Your task to perform on an android device: Go to network settings Image 0: 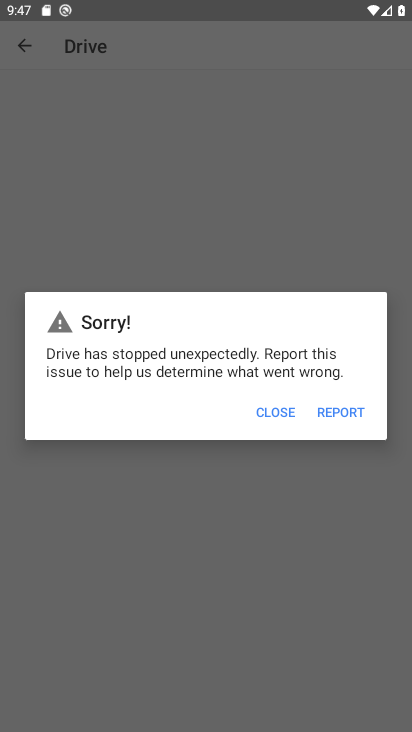
Step 0: press home button
Your task to perform on an android device: Go to network settings Image 1: 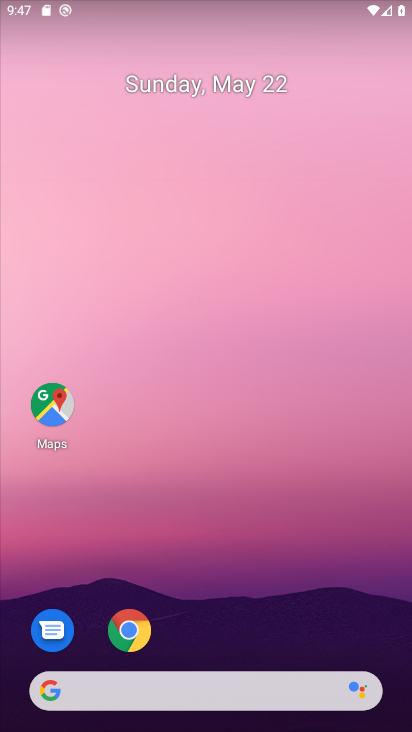
Step 1: drag from (398, 707) to (376, 377)
Your task to perform on an android device: Go to network settings Image 2: 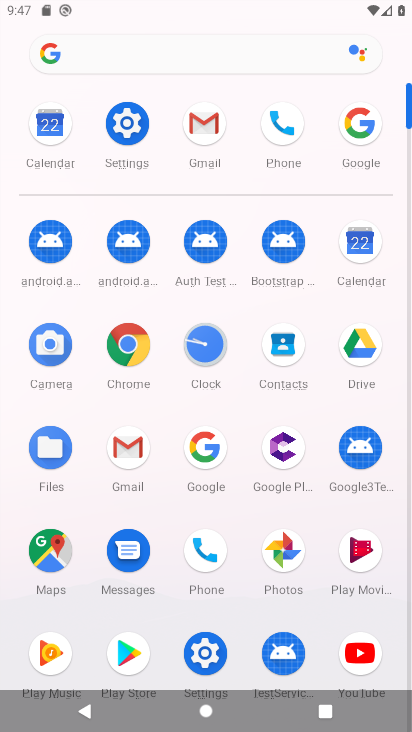
Step 2: click (128, 136)
Your task to perform on an android device: Go to network settings Image 3: 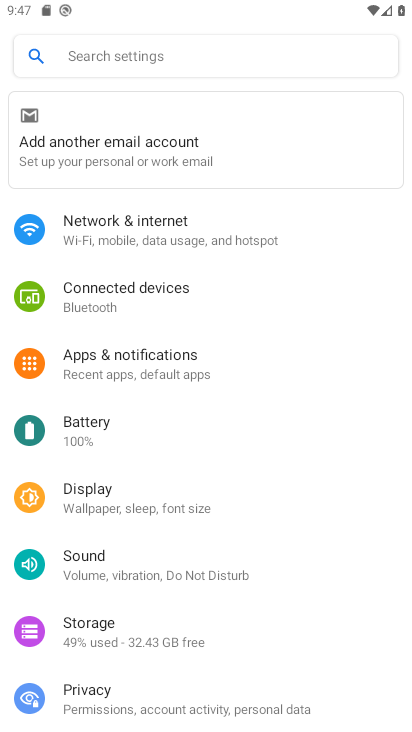
Step 3: click (101, 220)
Your task to perform on an android device: Go to network settings Image 4: 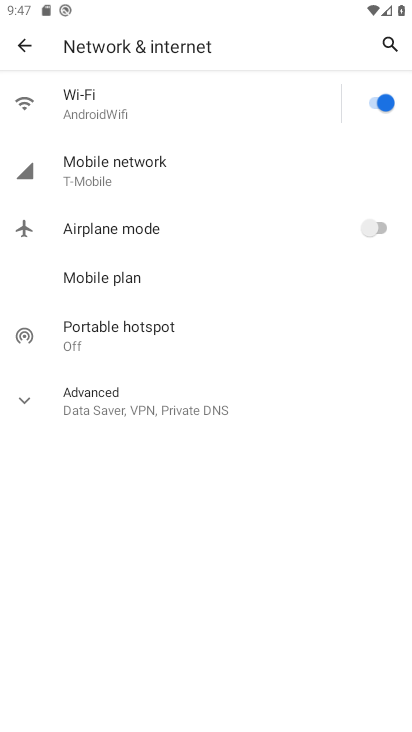
Step 4: click (93, 171)
Your task to perform on an android device: Go to network settings Image 5: 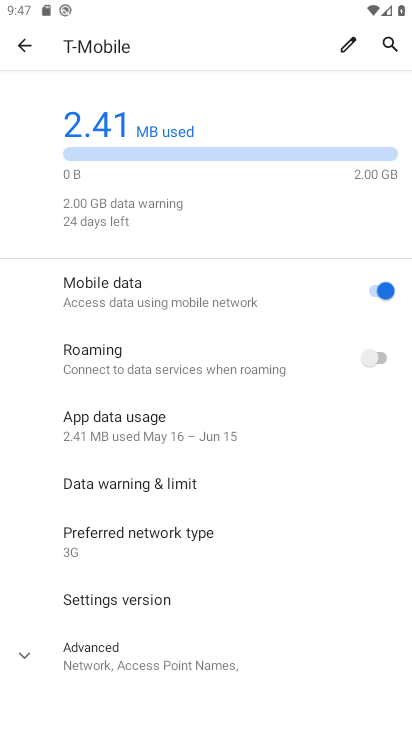
Step 5: task complete